Your task to perform on an android device: Add "razer blade" to the cart on newegg Image 0: 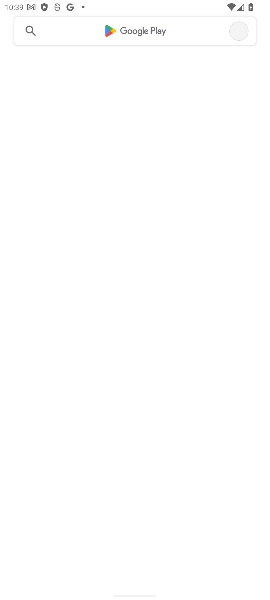
Step 0: click (198, 184)
Your task to perform on an android device: Add "razer blade" to the cart on newegg Image 1: 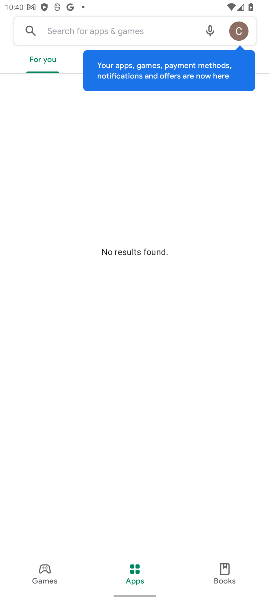
Step 1: press home button
Your task to perform on an android device: Add "razer blade" to the cart on newegg Image 2: 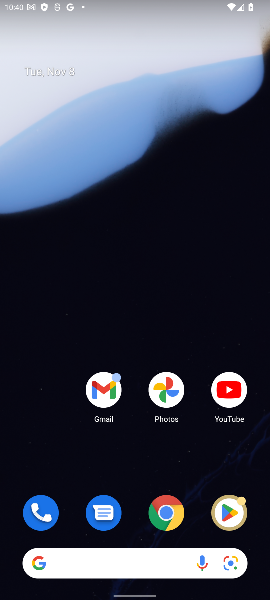
Step 2: click (161, 518)
Your task to perform on an android device: Add "razer blade" to the cart on newegg Image 3: 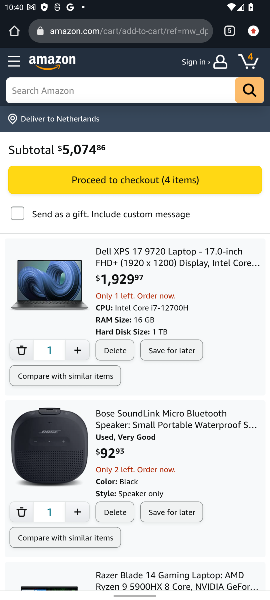
Step 3: click (230, 31)
Your task to perform on an android device: Add "razer blade" to the cart on newegg Image 4: 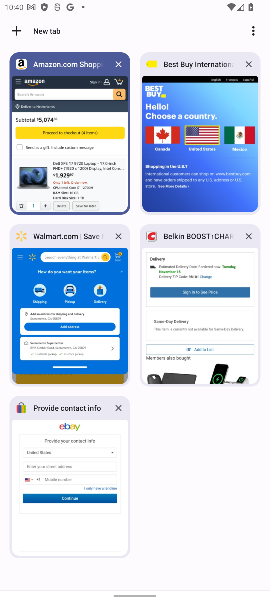
Step 4: click (73, 446)
Your task to perform on an android device: Add "razer blade" to the cart on newegg Image 5: 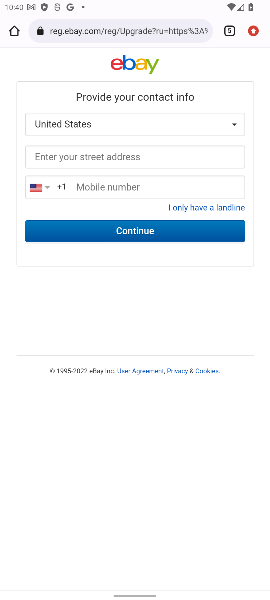
Step 5: click (226, 30)
Your task to perform on an android device: Add "razer blade" to the cart on newegg Image 6: 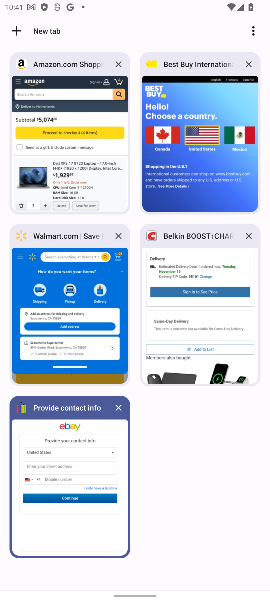
Step 6: click (40, 490)
Your task to perform on an android device: Add "razer blade" to the cart on newegg Image 7: 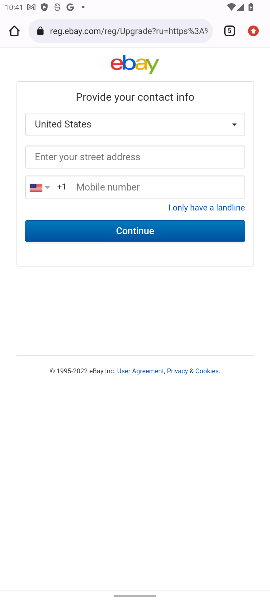
Step 7: click (228, 25)
Your task to perform on an android device: Add "razer blade" to the cart on newegg Image 8: 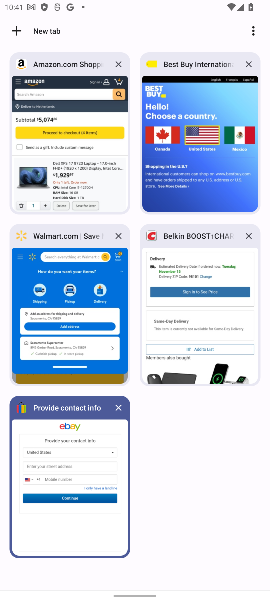
Step 8: click (11, 30)
Your task to perform on an android device: Add "razer blade" to the cart on newegg Image 9: 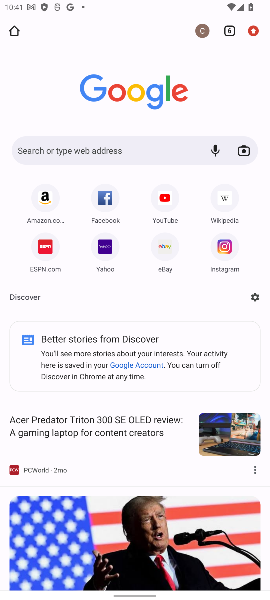
Step 9: click (125, 153)
Your task to perform on an android device: Add "razer blade" to the cart on newegg Image 10: 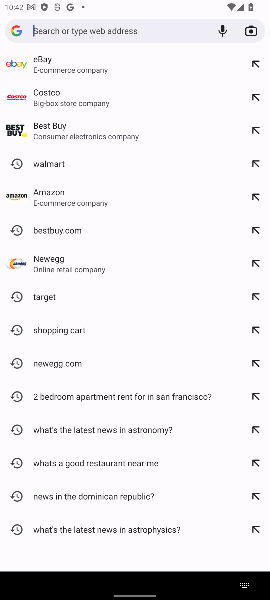
Step 10: click (42, 271)
Your task to perform on an android device: Add "razer blade" to the cart on newegg Image 11: 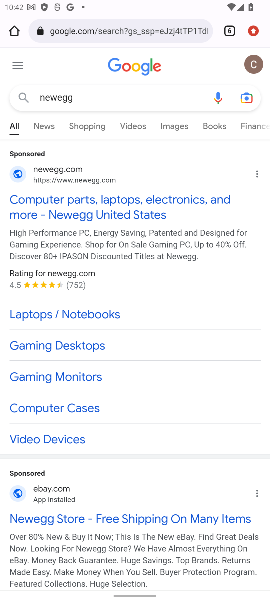
Step 11: drag from (112, 437) to (194, 97)
Your task to perform on an android device: Add "razer blade" to the cart on newegg Image 12: 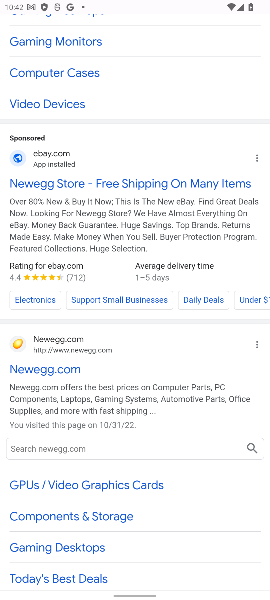
Step 12: click (45, 450)
Your task to perform on an android device: Add "razer blade" to the cart on newegg Image 13: 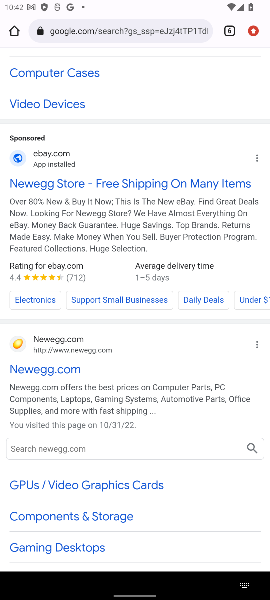
Step 13: type "razer blade"
Your task to perform on an android device: Add "razer blade" to the cart on newegg Image 14: 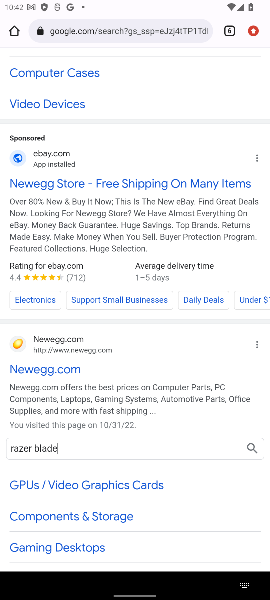
Step 14: click (253, 446)
Your task to perform on an android device: Add "razer blade" to the cart on newegg Image 15: 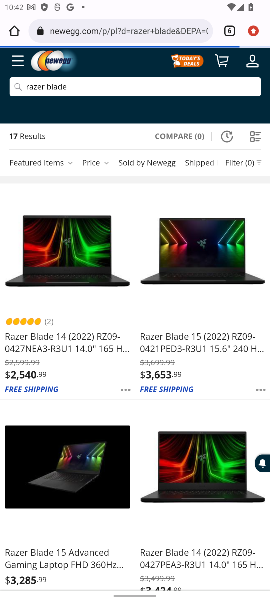
Step 15: click (162, 345)
Your task to perform on an android device: Add "razer blade" to the cart on newegg Image 16: 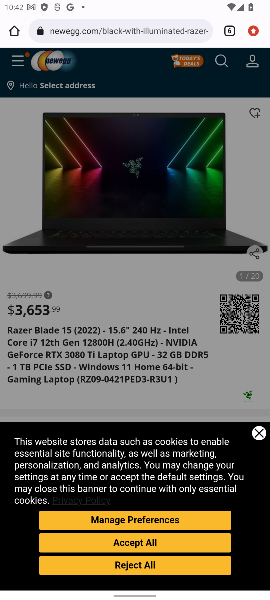
Step 16: click (170, 564)
Your task to perform on an android device: Add "razer blade" to the cart on newegg Image 17: 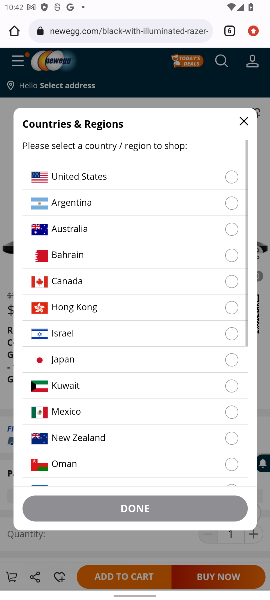
Step 17: click (234, 174)
Your task to perform on an android device: Add "razer blade" to the cart on newegg Image 18: 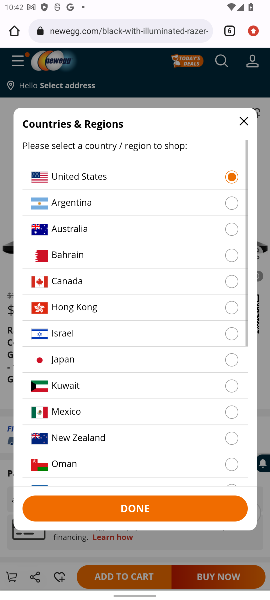
Step 18: click (163, 511)
Your task to perform on an android device: Add "razer blade" to the cart on newegg Image 19: 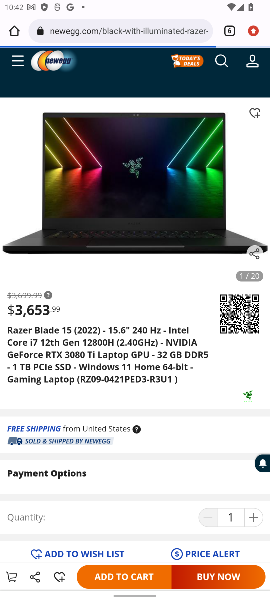
Step 19: click (126, 573)
Your task to perform on an android device: Add "razer blade" to the cart on newegg Image 20: 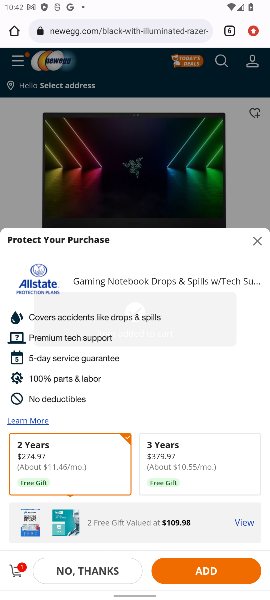
Step 20: task complete